Your task to perform on an android device: move a message to another label in the gmail app Image 0: 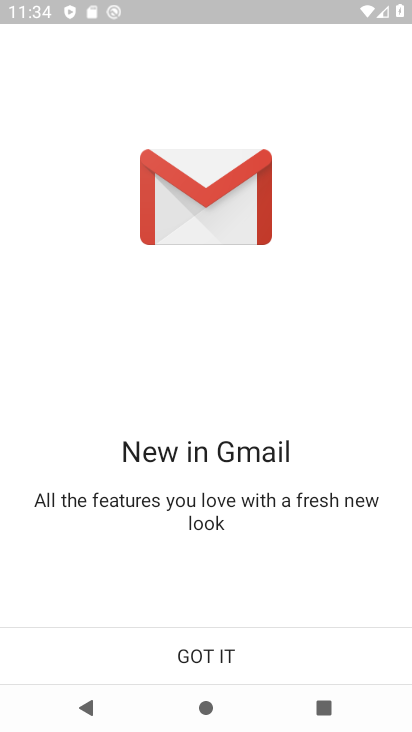
Step 0: click (194, 653)
Your task to perform on an android device: move a message to another label in the gmail app Image 1: 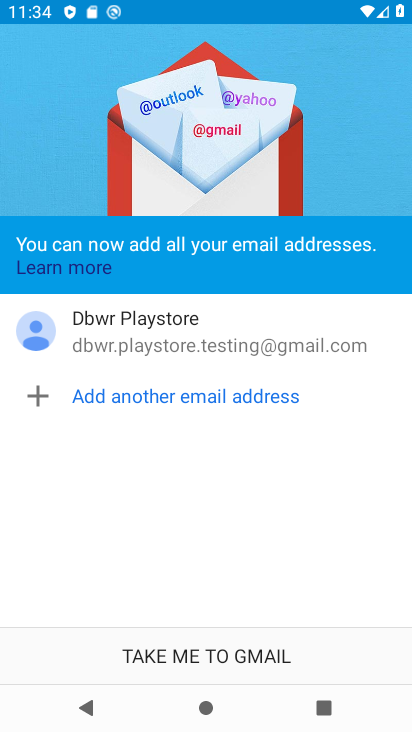
Step 1: click (172, 649)
Your task to perform on an android device: move a message to another label in the gmail app Image 2: 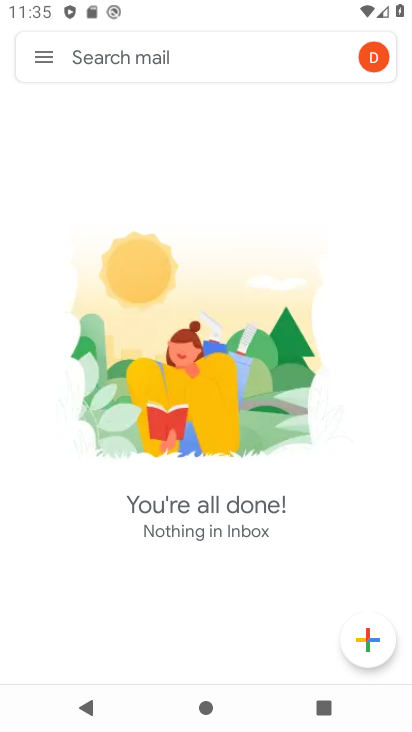
Step 2: click (41, 52)
Your task to perform on an android device: move a message to another label in the gmail app Image 3: 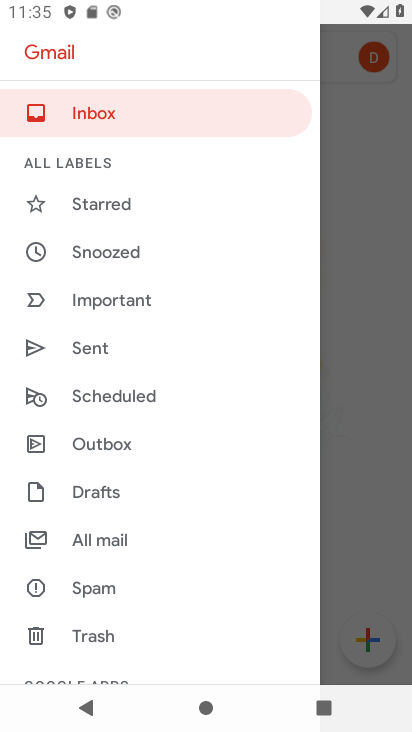
Step 3: click (112, 542)
Your task to perform on an android device: move a message to another label in the gmail app Image 4: 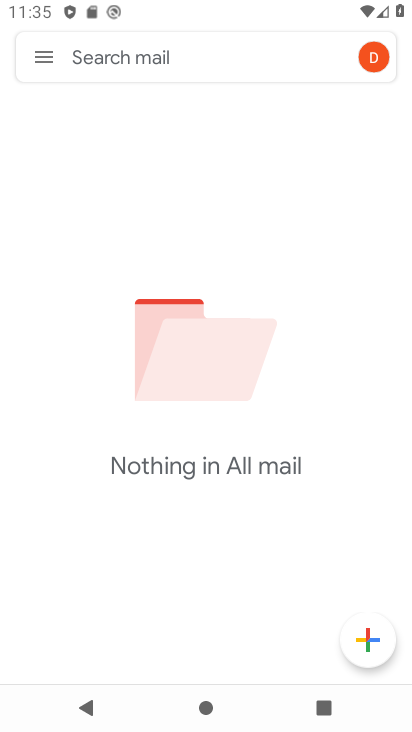
Step 4: task complete